Your task to perform on an android device: install app "Spotify: Music and Podcasts" Image 0: 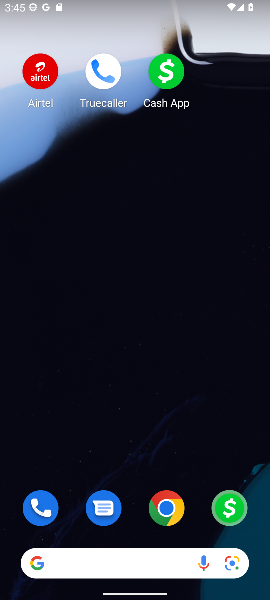
Step 0: drag from (245, 437) to (113, 9)
Your task to perform on an android device: install app "Spotify: Music and Podcasts" Image 1: 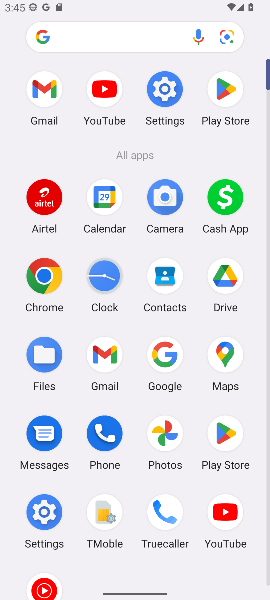
Step 1: click (218, 440)
Your task to perform on an android device: install app "Spotify: Music and Podcasts" Image 2: 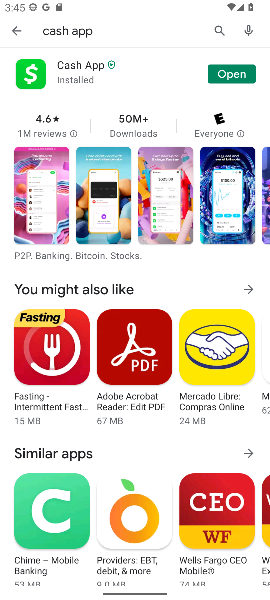
Step 2: press back button
Your task to perform on an android device: install app "Spotify: Music and Podcasts" Image 3: 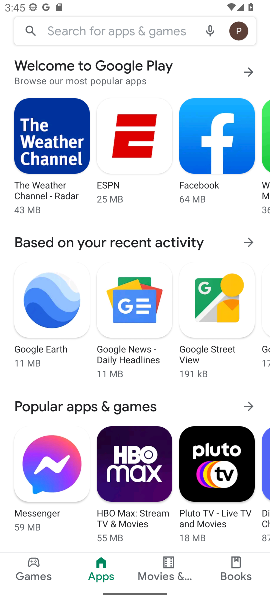
Step 3: click (86, 22)
Your task to perform on an android device: install app "Spotify: Music and Podcasts" Image 4: 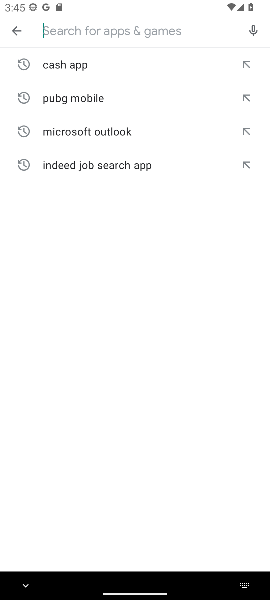
Step 4: type "Spotify: Music and Podcasts"
Your task to perform on an android device: install app "Spotify: Music and Podcasts" Image 5: 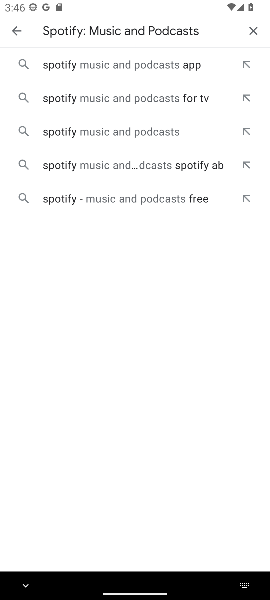
Step 5: click (142, 76)
Your task to perform on an android device: install app "Spotify: Music and Podcasts" Image 6: 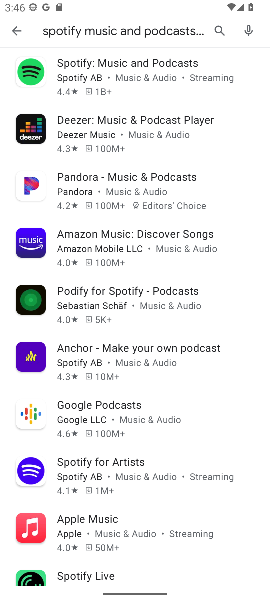
Step 6: click (134, 76)
Your task to perform on an android device: install app "Spotify: Music and Podcasts" Image 7: 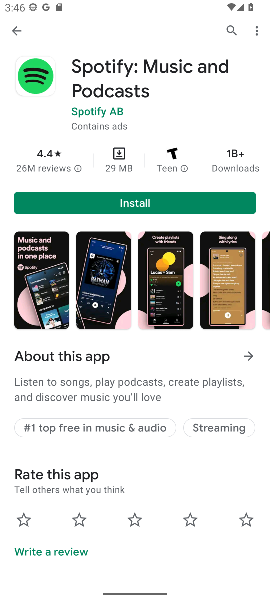
Step 7: click (132, 204)
Your task to perform on an android device: install app "Spotify: Music and Podcasts" Image 8: 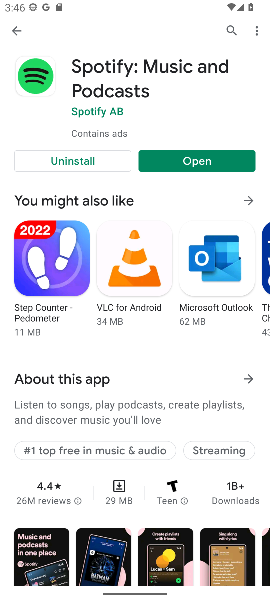
Step 8: task complete